Your task to perform on an android device: empty trash in google photos Image 0: 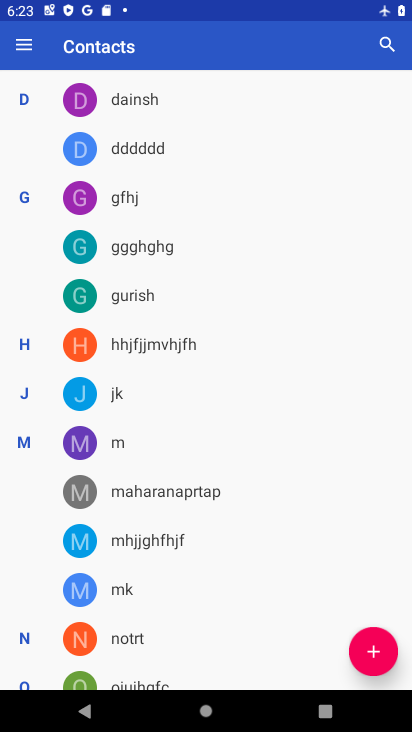
Step 0: press home button
Your task to perform on an android device: empty trash in google photos Image 1: 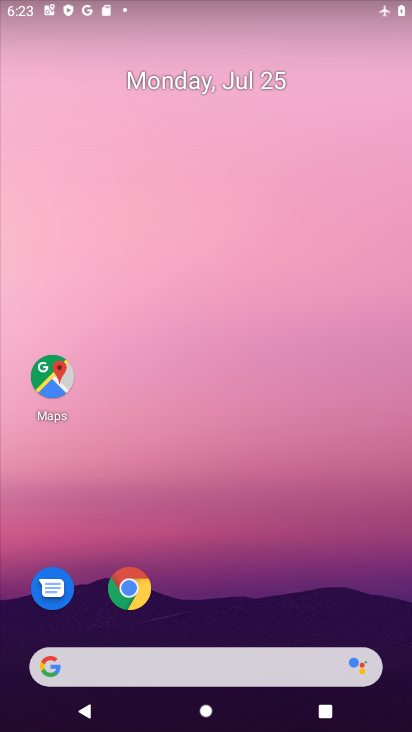
Step 1: drag from (253, 519) to (239, 294)
Your task to perform on an android device: empty trash in google photos Image 2: 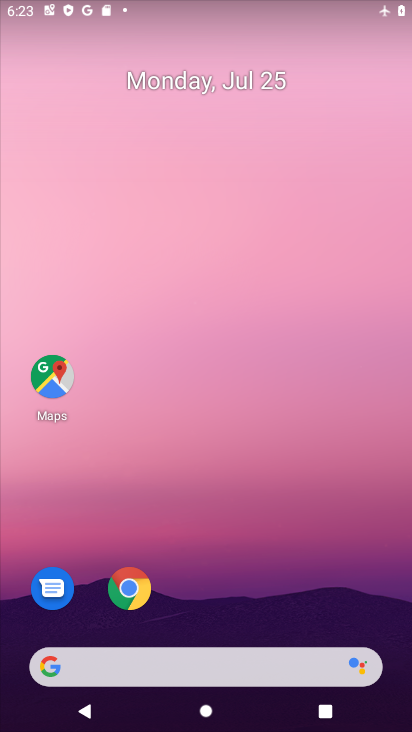
Step 2: drag from (230, 595) to (287, 193)
Your task to perform on an android device: empty trash in google photos Image 3: 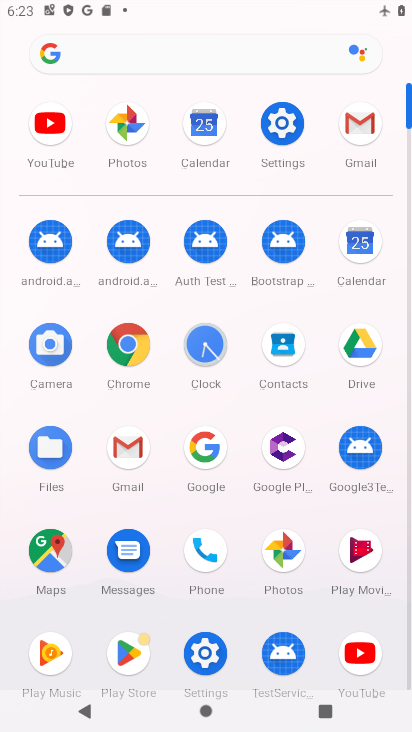
Step 3: click (289, 556)
Your task to perform on an android device: empty trash in google photos Image 4: 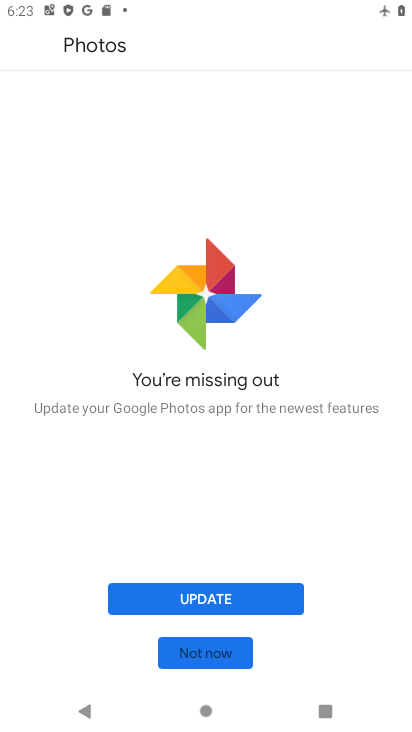
Step 4: click (195, 649)
Your task to perform on an android device: empty trash in google photos Image 5: 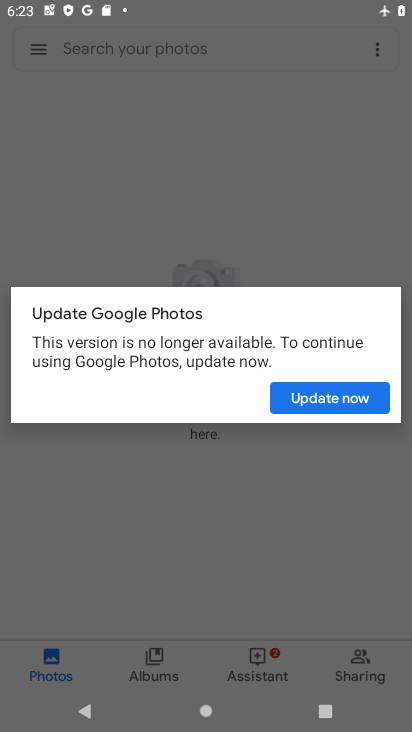
Step 5: click (210, 454)
Your task to perform on an android device: empty trash in google photos Image 6: 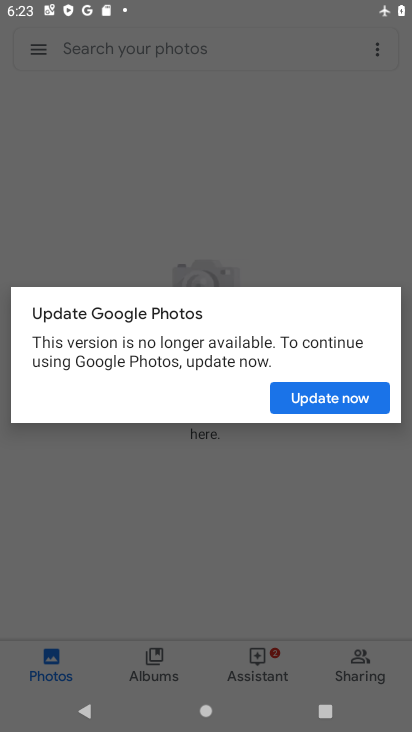
Step 6: click (210, 454)
Your task to perform on an android device: empty trash in google photos Image 7: 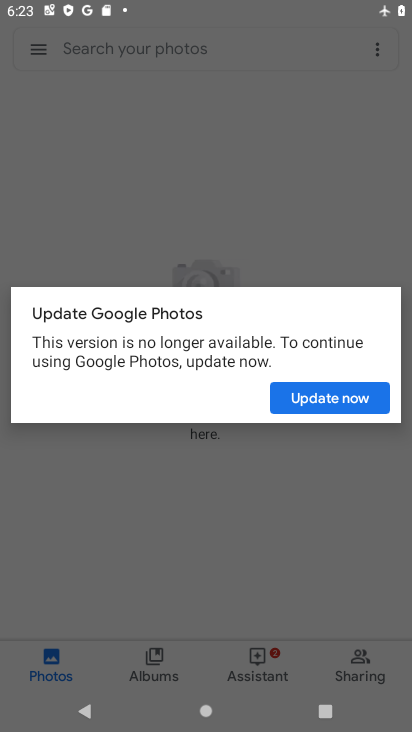
Step 7: click (227, 466)
Your task to perform on an android device: empty trash in google photos Image 8: 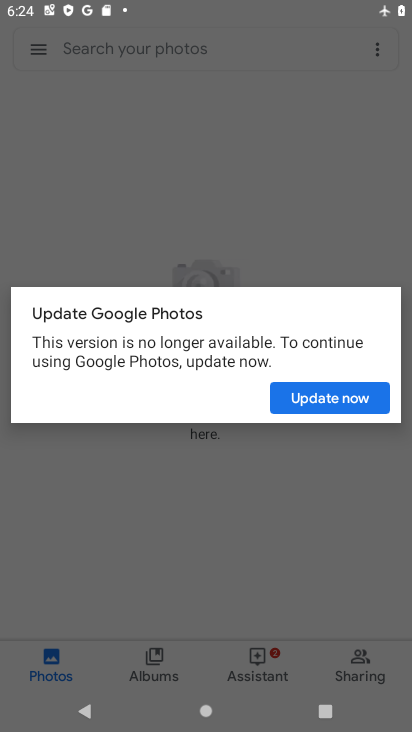
Step 8: task complete